Your task to perform on an android device: Add "usb-c to usb-a" to the cart on costco.com Image 0: 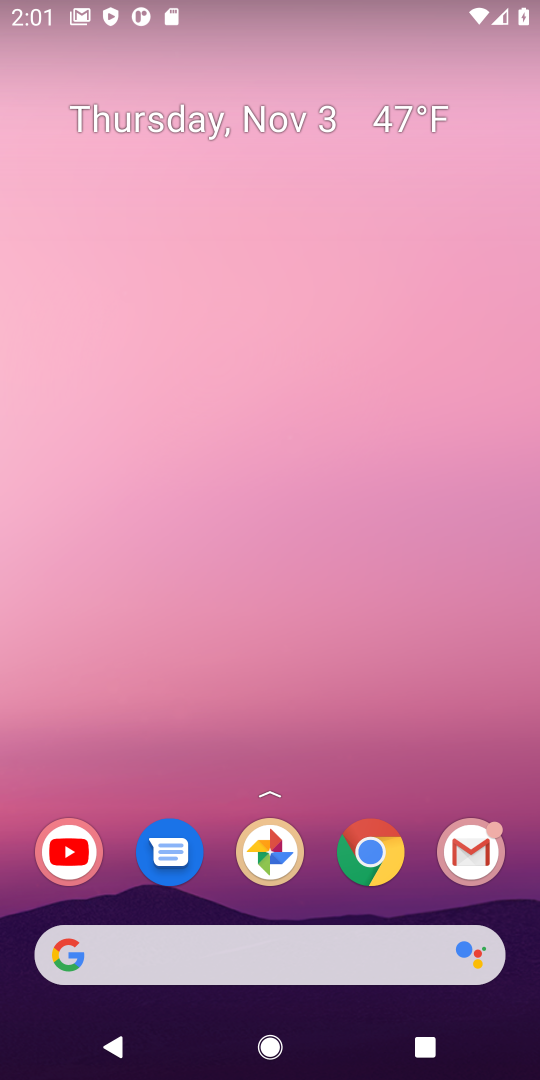
Step 0: click (375, 855)
Your task to perform on an android device: Add "usb-c to usb-a" to the cart on costco.com Image 1: 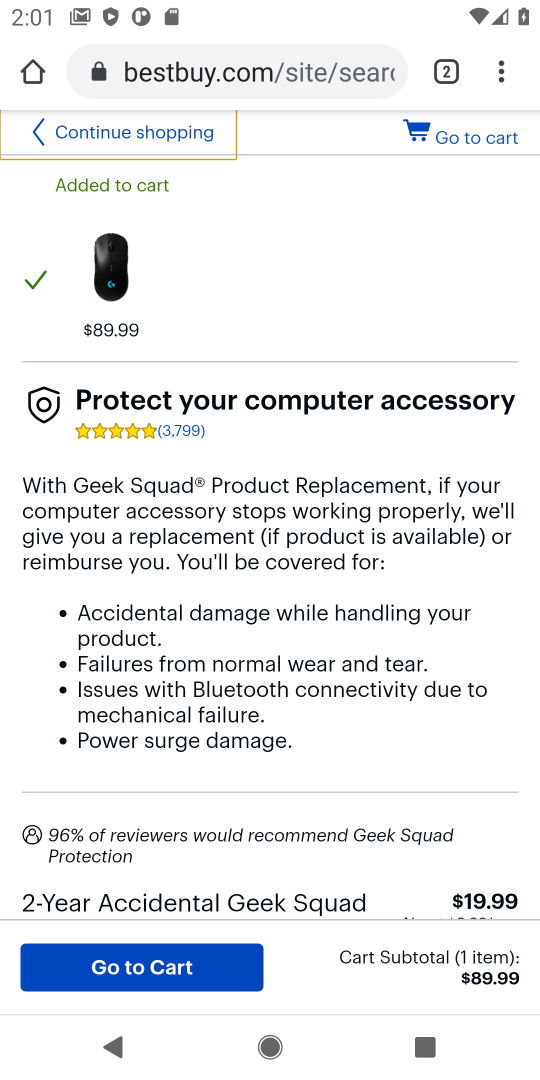
Step 1: click (255, 76)
Your task to perform on an android device: Add "usb-c to usb-a" to the cart on costco.com Image 2: 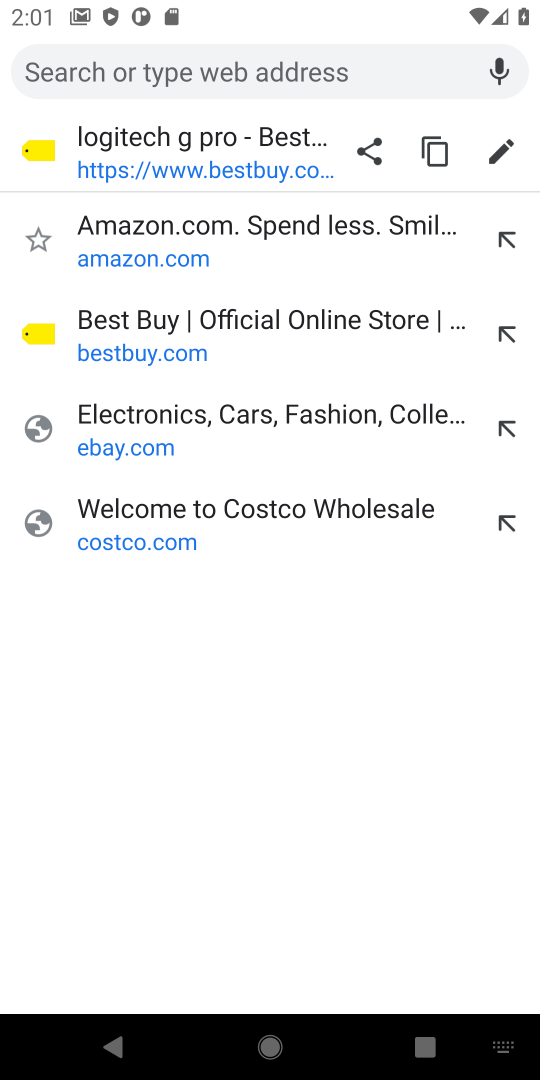
Step 2: click (172, 542)
Your task to perform on an android device: Add "usb-c to usb-a" to the cart on costco.com Image 3: 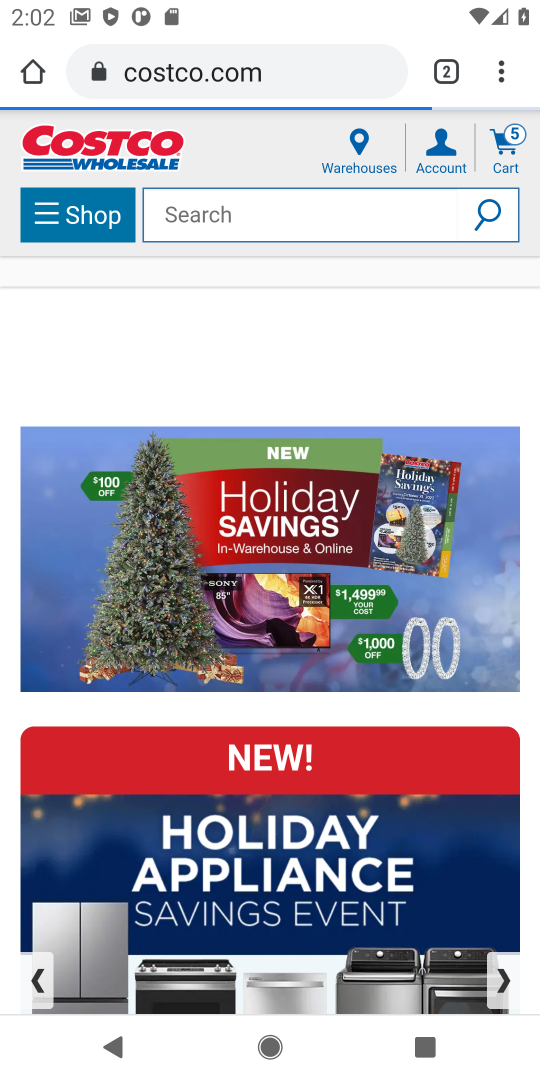
Step 3: click (198, 222)
Your task to perform on an android device: Add "usb-c to usb-a" to the cart on costco.com Image 4: 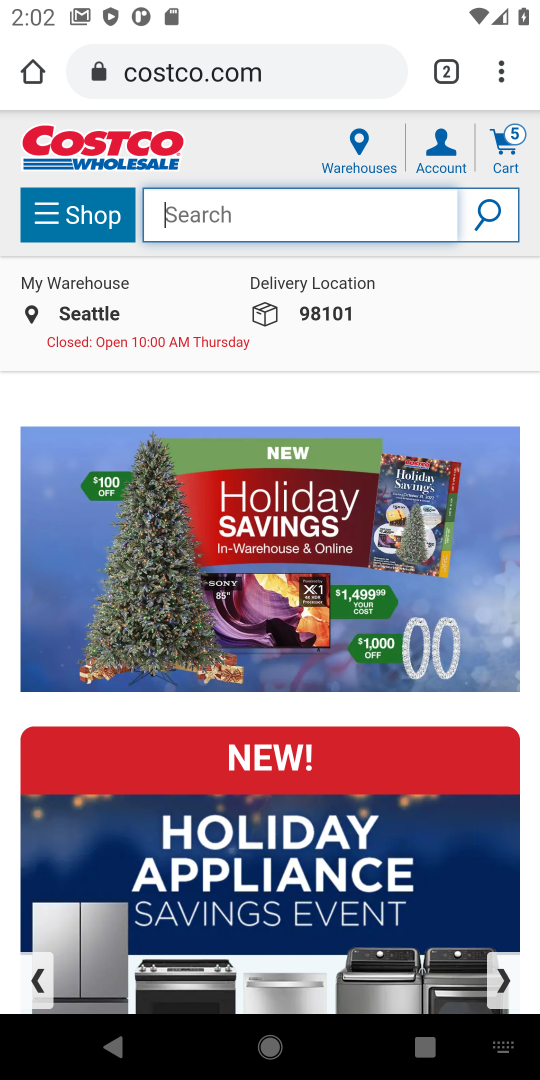
Step 4: type "usb-c to usb-a"
Your task to perform on an android device: Add "usb-c to usb-a" to the cart on costco.com Image 5: 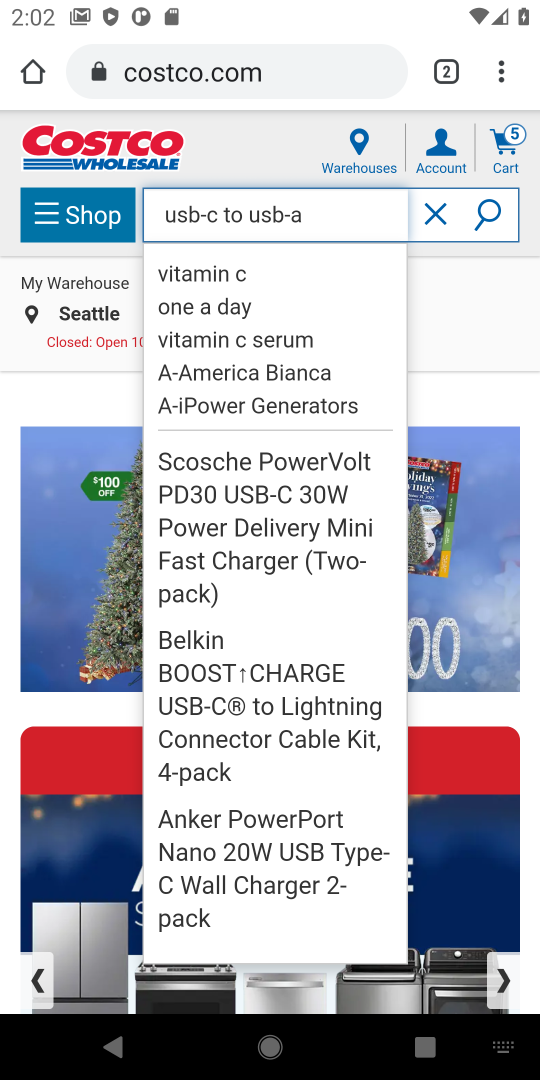
Step 5: click (491, 213)
Your task to perform on an android device: Add "usb-c to usb-a" to the cart on costco.com Image 6: 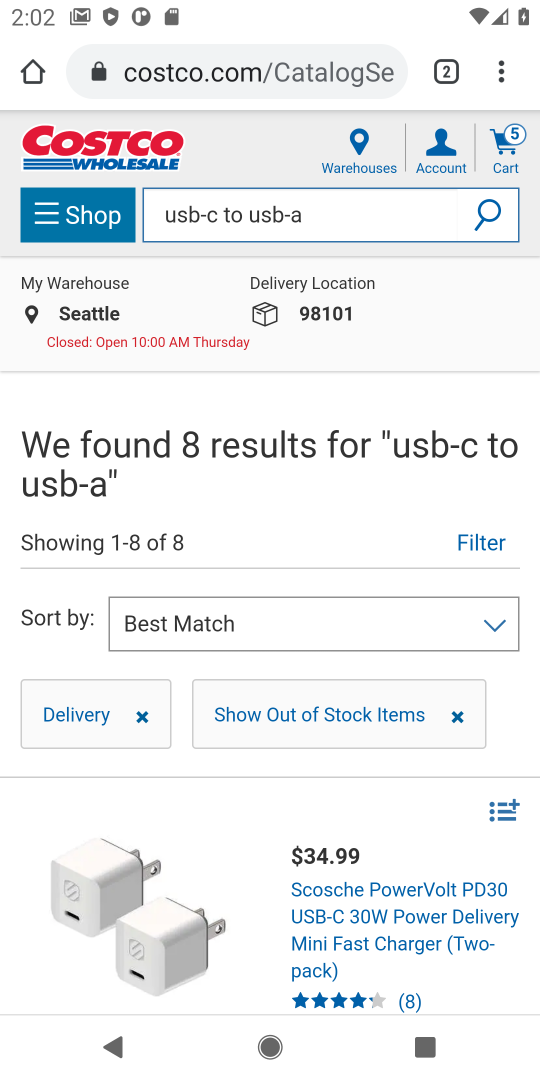
Step 6: task complete